Your task to perform on an android device: toggle pop-ups in chrome Image 0: 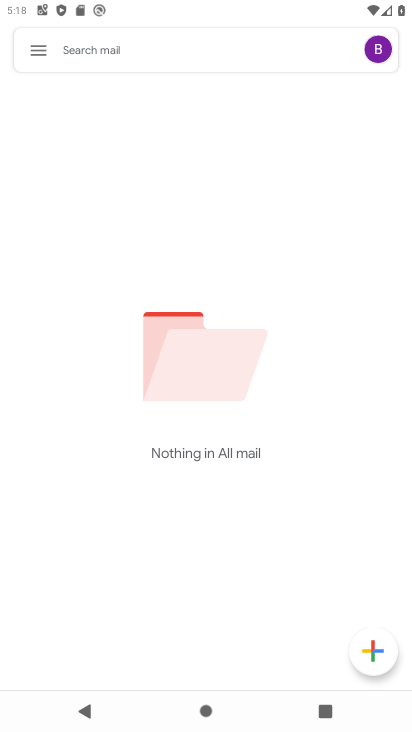
Step 0: drag from (229, 604) to (270, 29)
Your task to perform on an android device: toggle pop-ups in chrome Image 1: 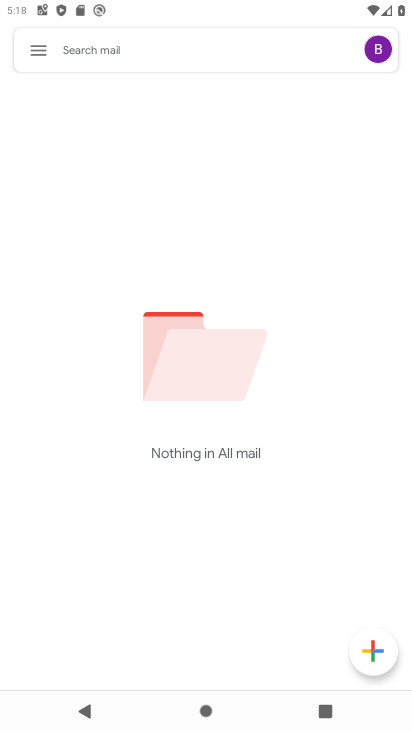
Step 1: press back button
Your task to perform on an android device: toggle pop-ups in chrome Image 2: 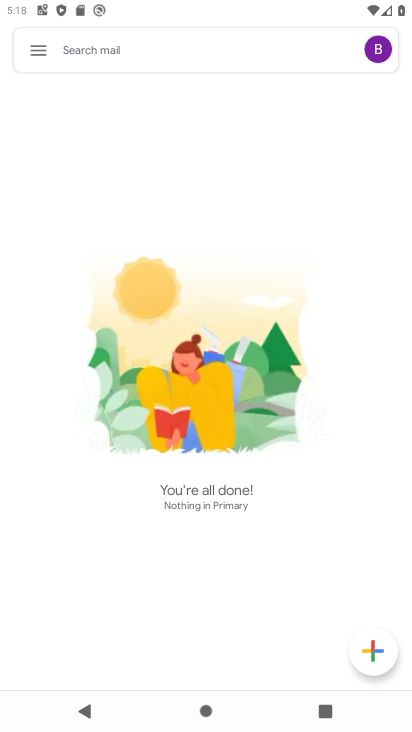
Step 2: press back button
Your task to perform on an android device: toggle pop-ups in chrome Image 3: 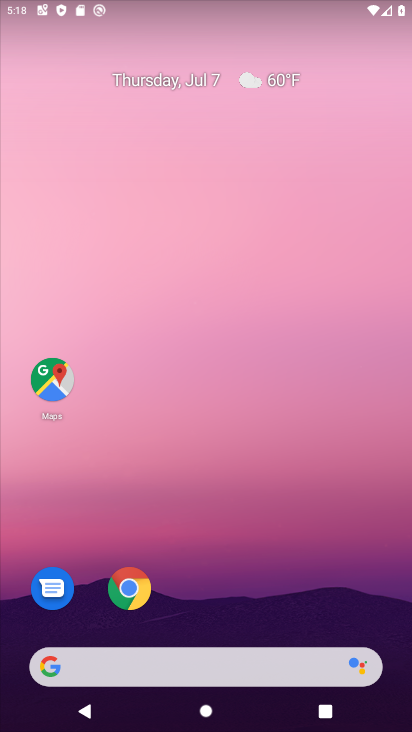
Step 3: drag from (176, 552) to (219, 99)
Your task to perform on an android device: toggle pop-ups in chrome Image 4: 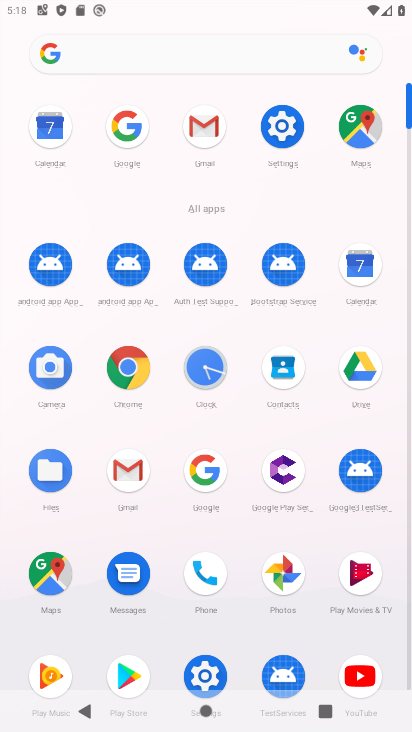
Step 4: click (123, 373)
Your task to perform on an android device: toggle pop-ups in chrome Image 5: 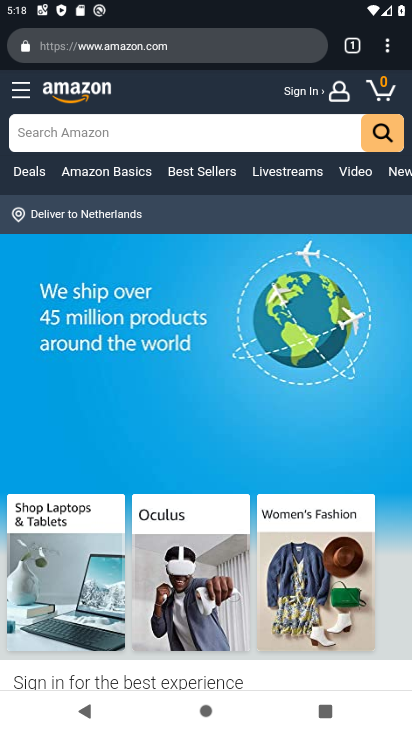
Step 5: drag from (387, 38) to (215, 548)
Your task to perform on an android device: toggle pop-ups in chrome Image 6: 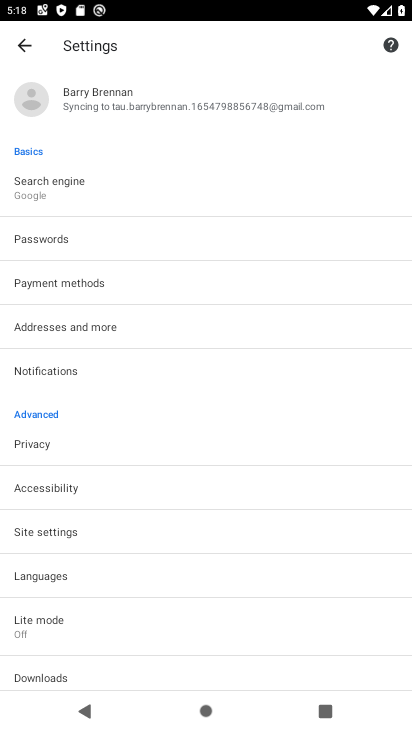
Step 6: click (52, 527)
Your task to perform on an android device: toggle pop-ups in chrome Image 7: 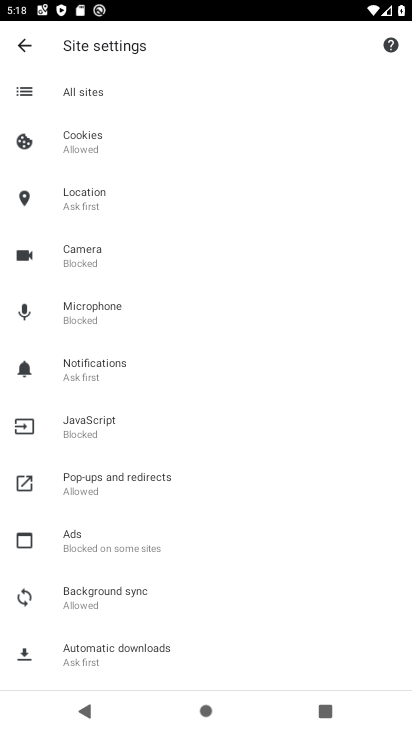
Step 7: click (107, 486)
Your task to perform on an android device: toggle pop-ups in chrome Image 8: 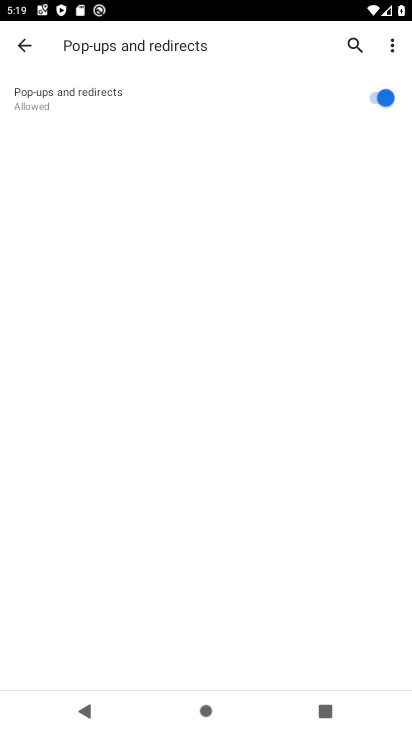
Step 8: click (382, 87)
Your task to perform on an android device: toggle pop-ups in chrome Image 9: 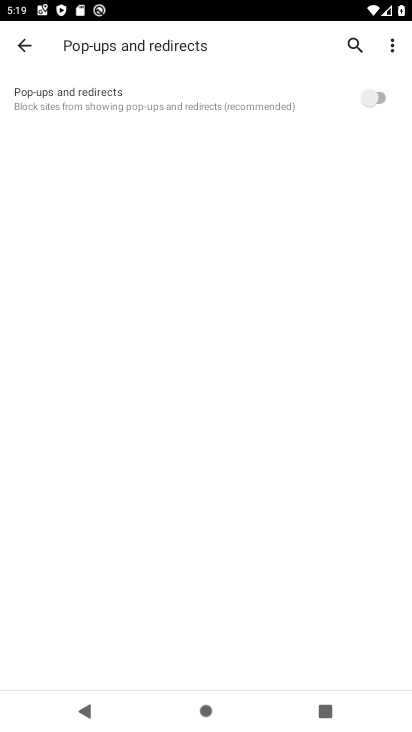
Step 9: task complete